Your task to perform on an android device: find photos in the google photos app Image 0: 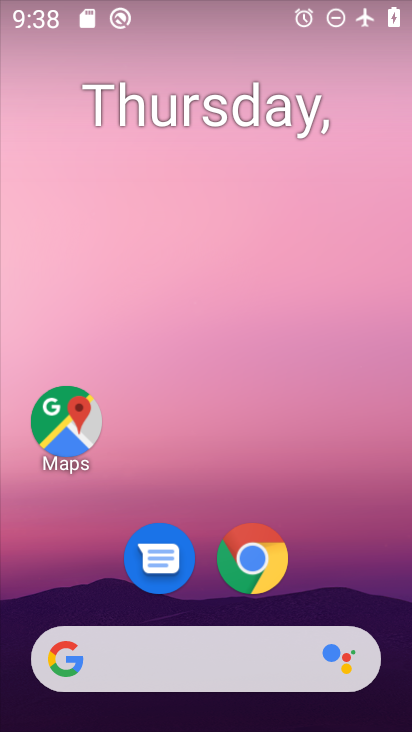
Step 0: drag from (403, 633) to (347, 295)
Your task to perform on an android device: find photos in the google photos app Image 1: 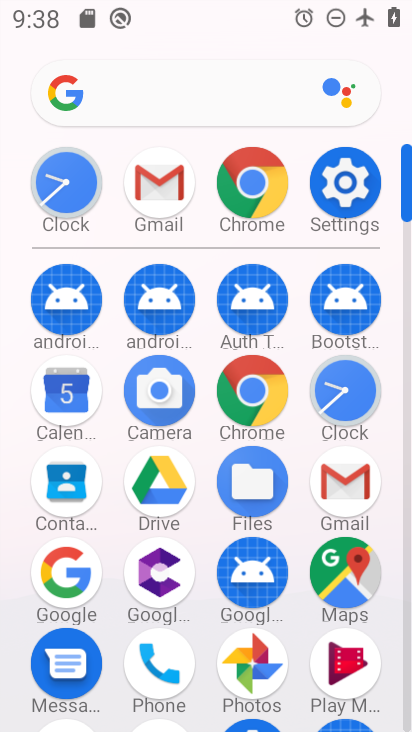
Step 1: click (407, 704)
Your task to perform on an android device: find photos in the google photos app Image 2: 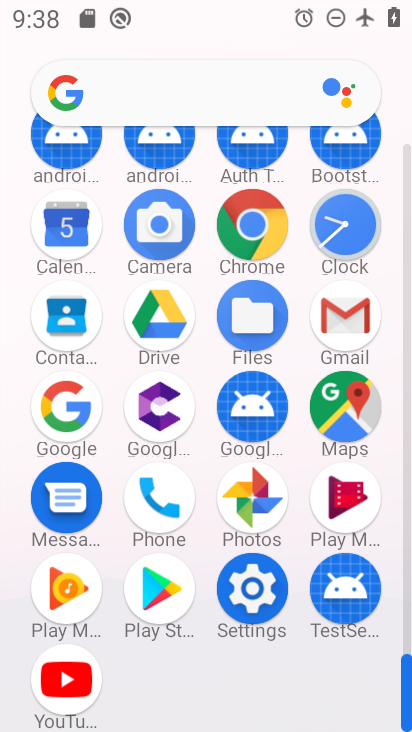
Step 2: click (251, 493)
Your task to perform on an android device: find photos in the google photos app Image 3: 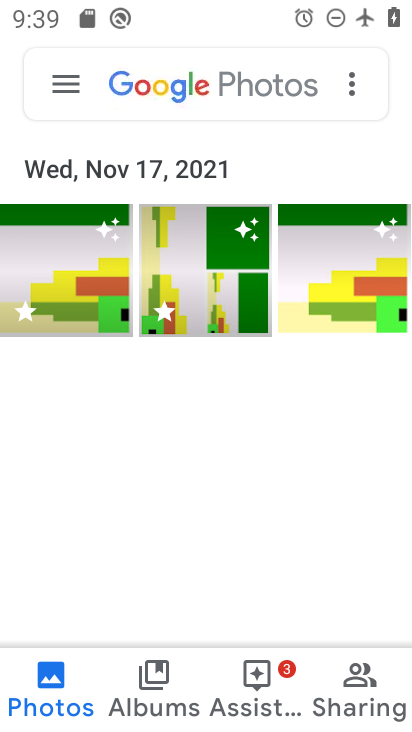
Step 3: task complete